Your task to perform on an android device: turn off wifi Image 0: 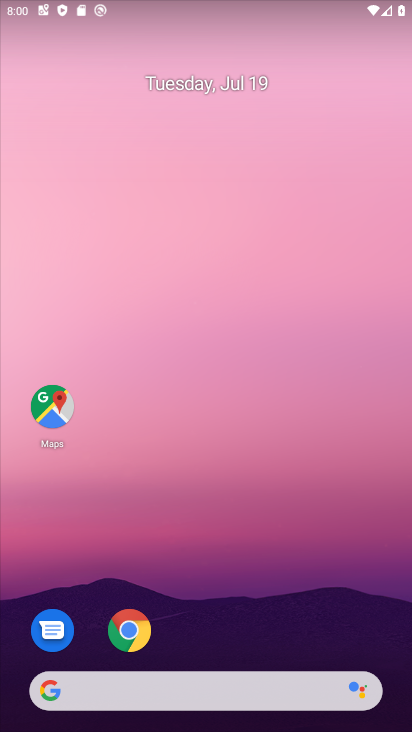
Step 0: drag from (300, 607) to (343, 52)
Your task to perform on an android device: turn off wifi Image 1: 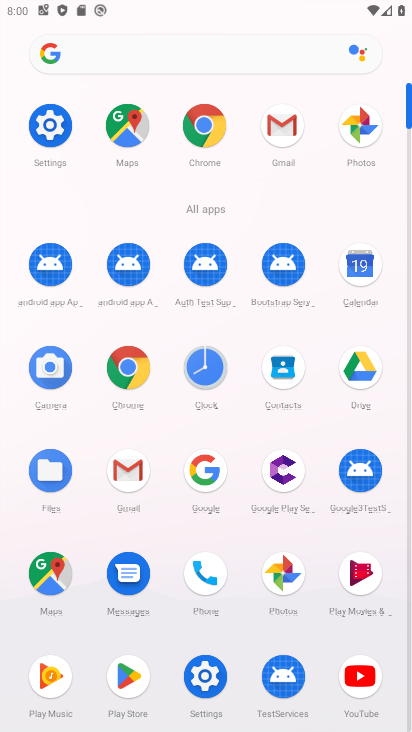
Step 1: click (43, 126)
Your task to perform on an android device: turn off wifi Image 2: 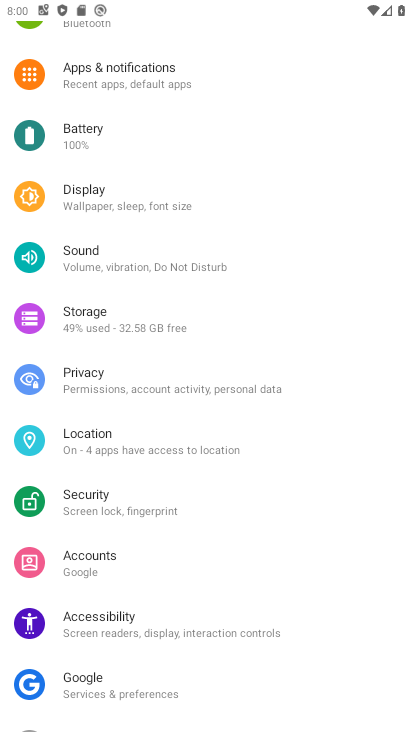
Step 2: drag from (141, 113) to (151, 547)
Your task to perform on an android device: turn off wifi Image 3: 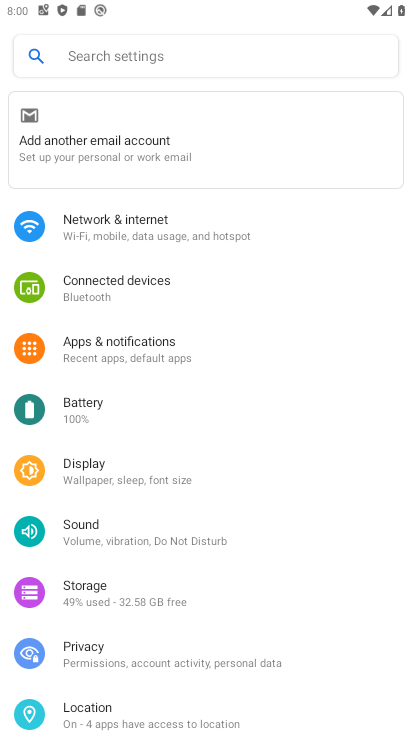
Step 3: click (187, 230)
Your task to perform on an android device: turn off wifi Image 4: 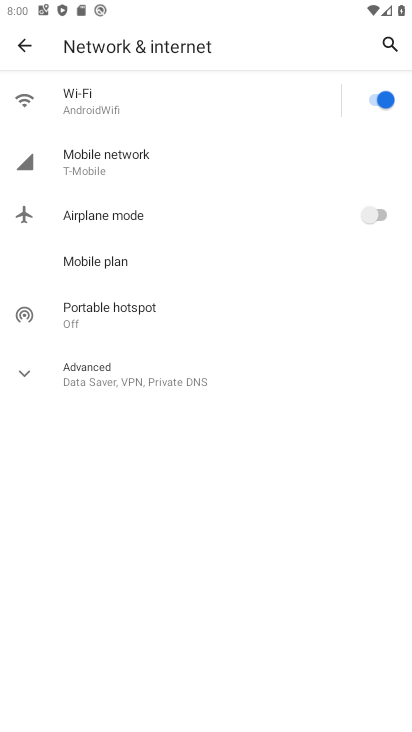
Step 4: click (377, 99)
Your task to perform on an android device: turn off wifi Image 5: 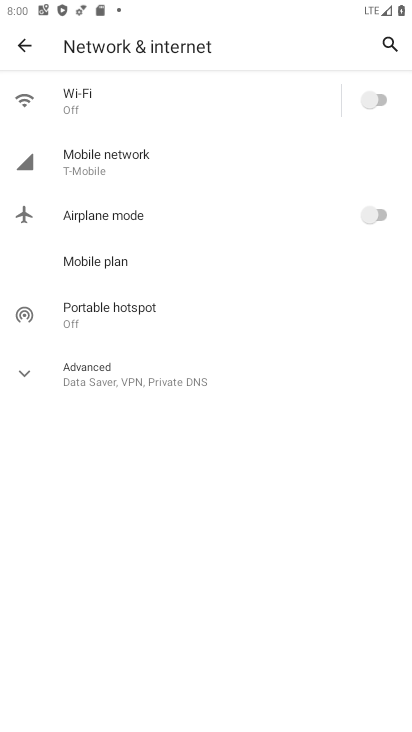
Step 5: task complete